Your task to perform on an android device: delete a single message in the gmail app Image 0: 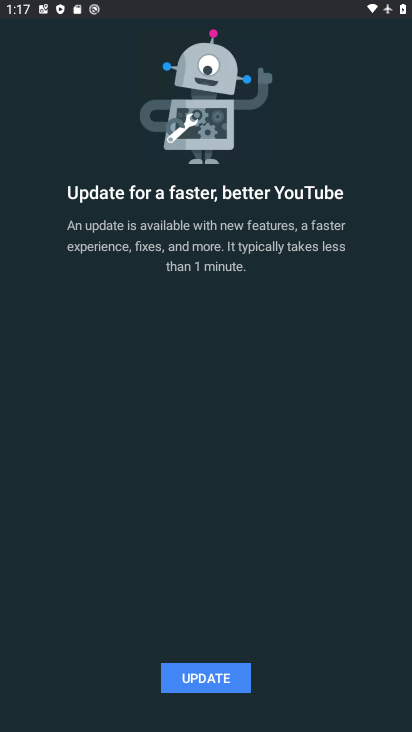
Step 0: press home button
Your task to perform on an android device: delete a single message in the gmail app Image 1: 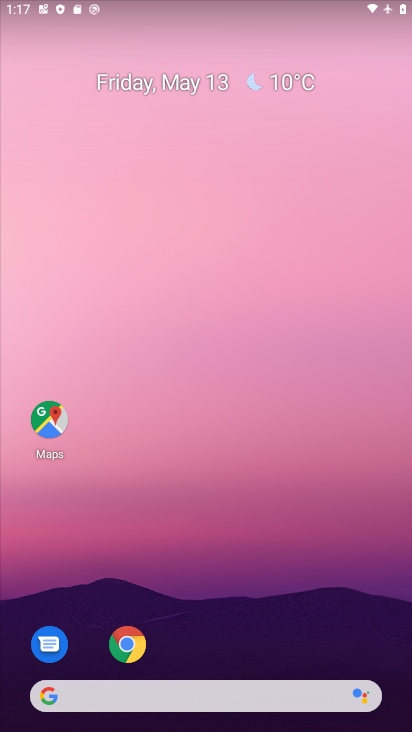
Step 1: drag from (236, 724) to (235, 184)
Your task to perform on an android device: delete a single message in the gmail app Image 2: 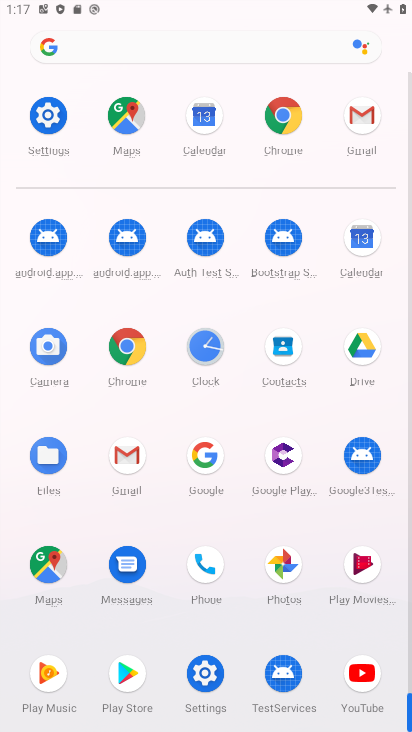
Step 2: click (125, 458)
Your task to perform on an android device: delete a single message in the gmail app Image 3: 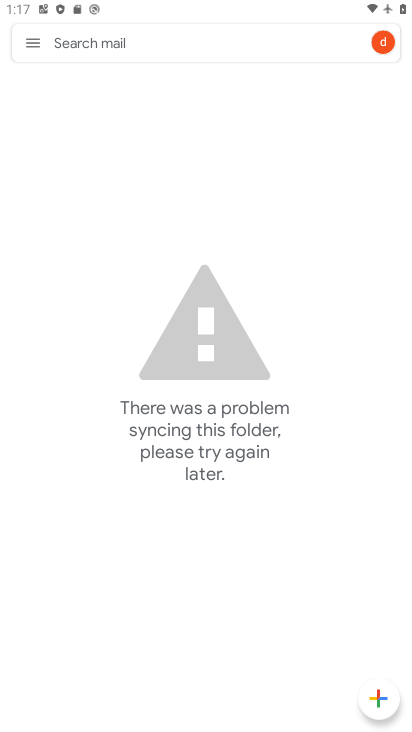
Step 3: click (32, 40)
Your task to perform on an android device: delete a single message in the gmail app Image 4: 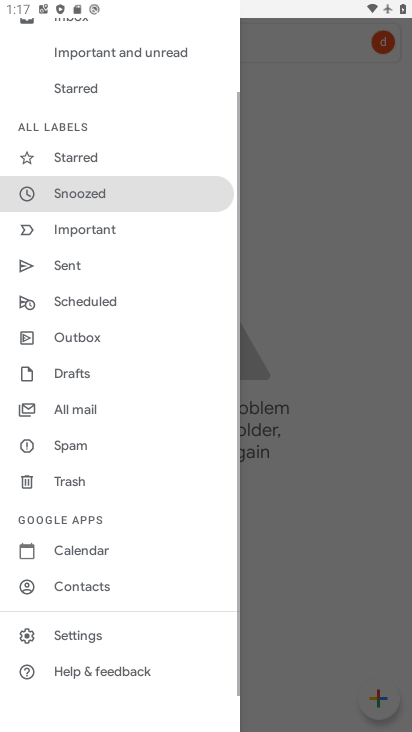
Step 4: drag from (100, 115) to (103, 588)
Your task to perform on an android device: delete a single message in the gmail app Image 5: 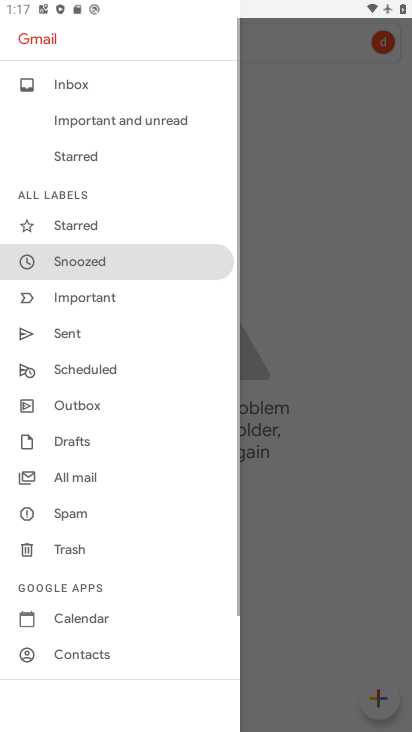
Step 5: click (74, 85)
Your task to perform on an android device: delete a single message in the gmail app Image 6: 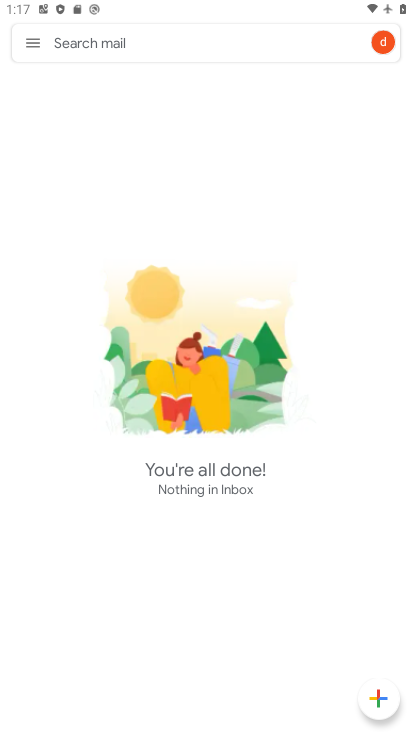
Step 6: task complete